Your task to perform on an android device: Go to battery settings Image 0: 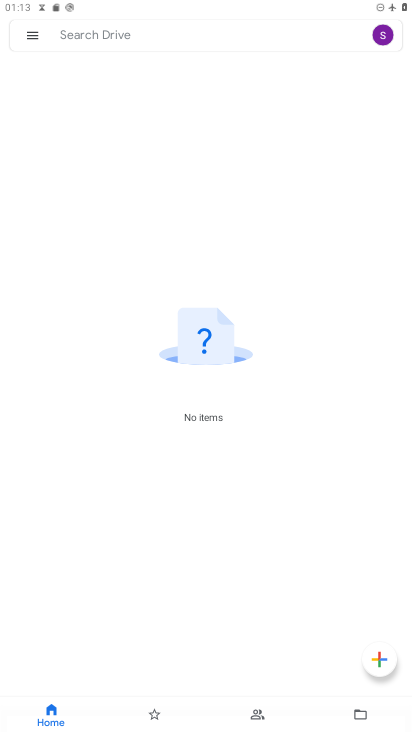
Step 0: press home button
Your task to perform on an android device: Go to battery settings Image 1: 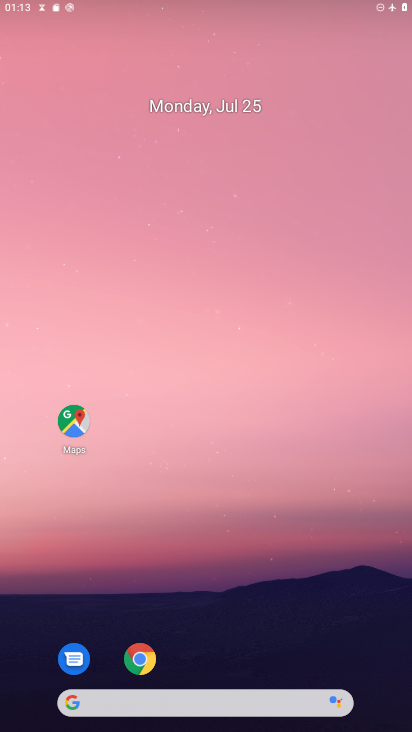
Step 1: drag from (224, 643) to (236, 107)
Your task to perform on an android device: Go to battery settings Image 2: 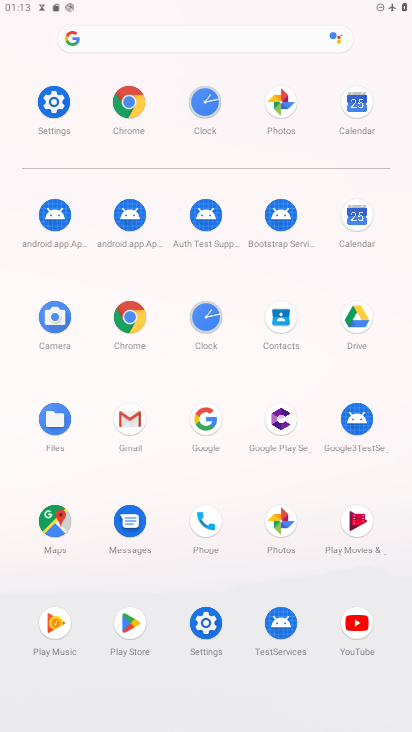
Step 2: click (67, 99)
Your task to perform on an android device: Go to battery settings Image 3: 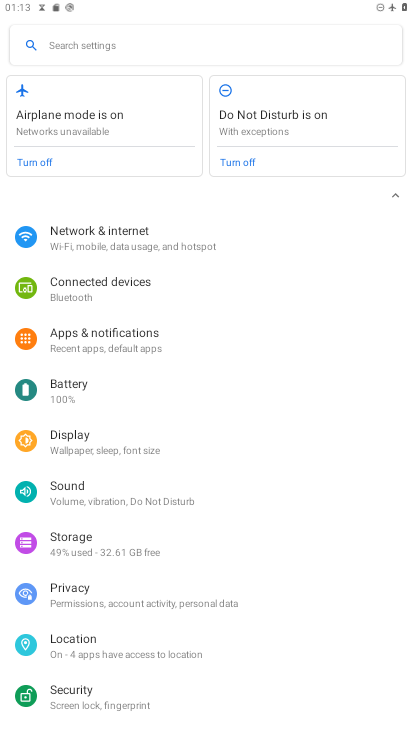
Step 3: click (78, 377)
Your task to perform on an android device: Go to battery settings Image 4: 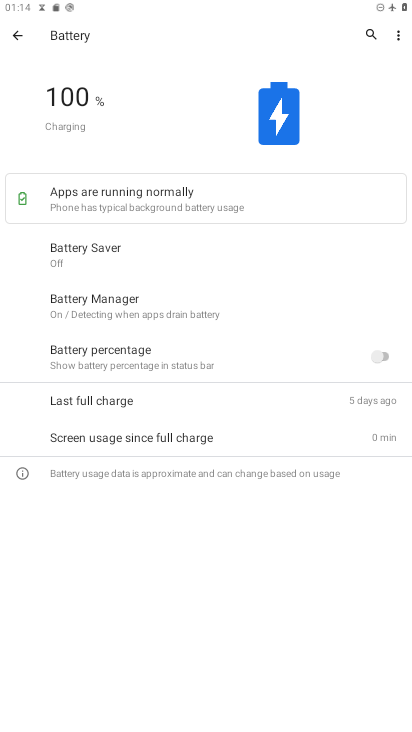
Step 4: task complete